Your task to perform on an android device: check data usage Image 0: 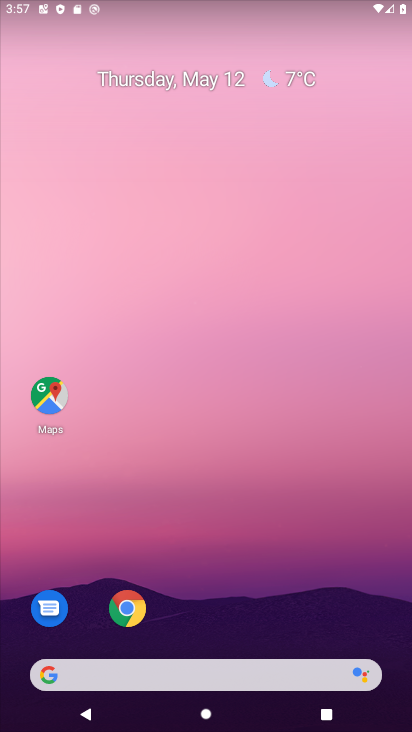
Step 0: drag from (267, 567) to (328, 58)
Your task to perform on an android device: check data usage Image 1: 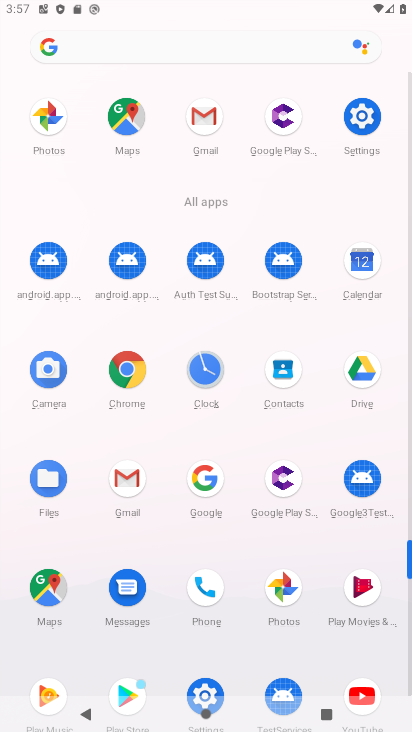
Step 1: click (363, 110)
Your task to perform on an android device: check data usage Image 2: 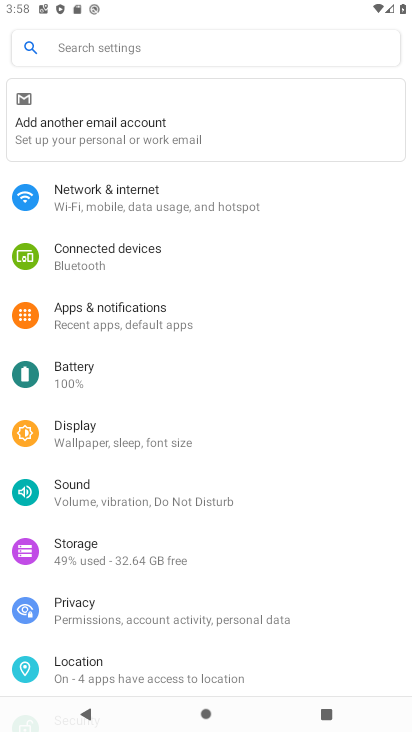
Step 2: click (137, 194)
Your task to perform on an android device: check data usage Image 3: 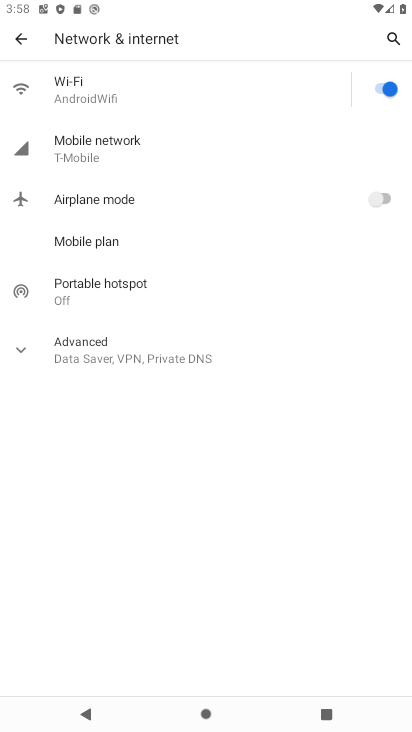
Step 3: click (80, 144)
Your task to perform on an android device: check data usage Image 4: 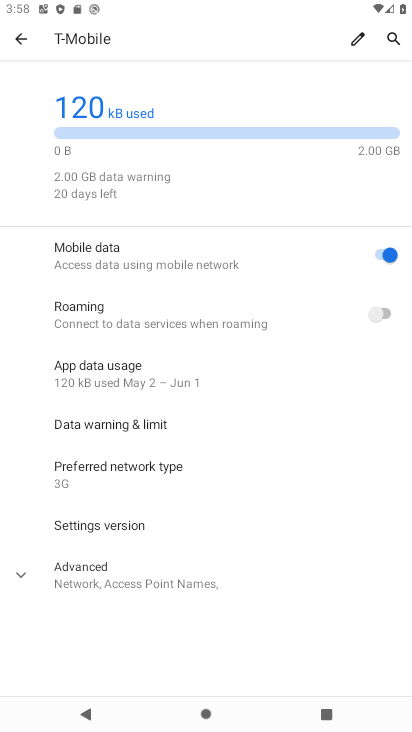
Step 4: task complete